Your task to perform on an android device: Open network settings Image 0: 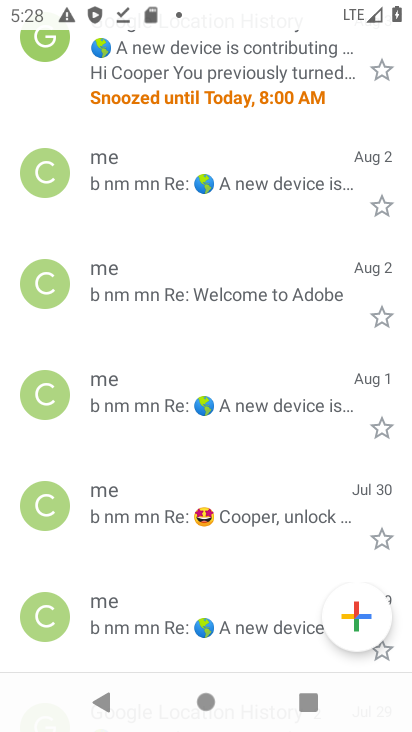
Step 0: drag from (215, 258) to (255, 693)
Your task to perform on an android device: Open network settings Image 1: 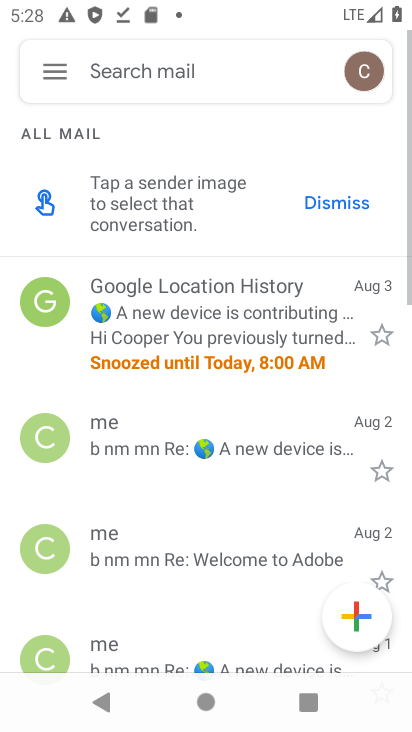
Step 1: click (63, 75)
Your task to perform on an android device: Open network settings Image 2: 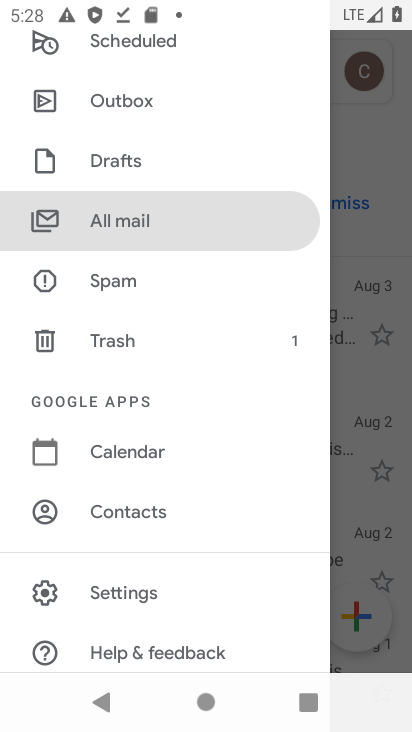
Step 2: drag from (182, 138) to (200, 663)
Your task to perform on an android device: Open network settings Image 3: 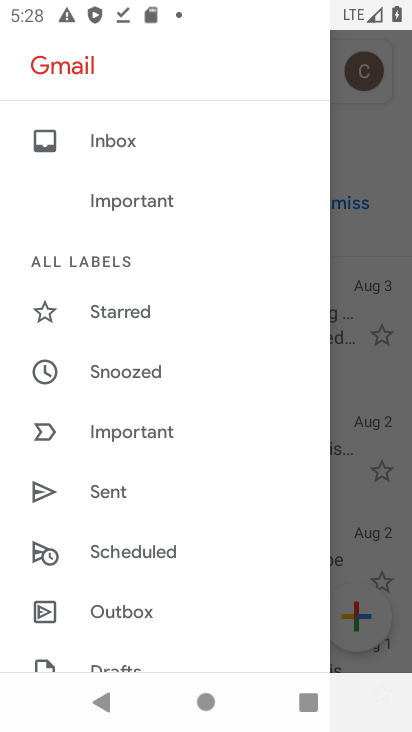
Step 3: drag from (89, 229) to (245, 722)
Your task to perform on an android device: Open network settings Image 4: 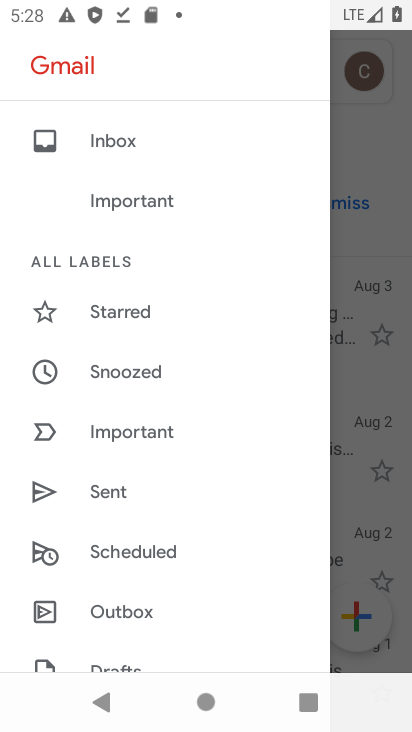
Step 4: press home button
Your task to perform on an android device: Open network settings Image 5: 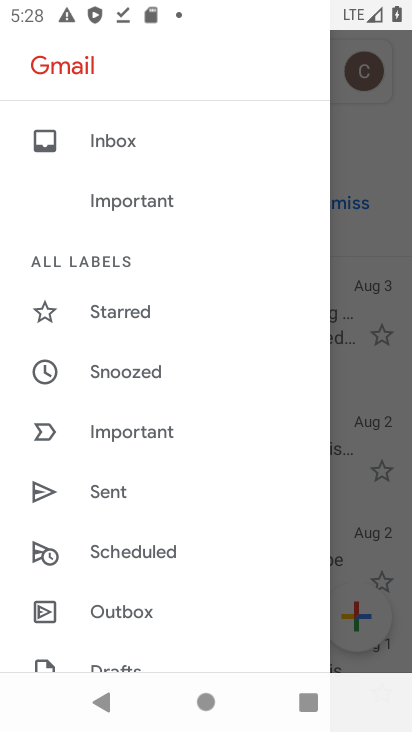
Step 5: drag from (212, 604) to (299, 102)
Your task to perform on an android device: Open network settings Image 6: 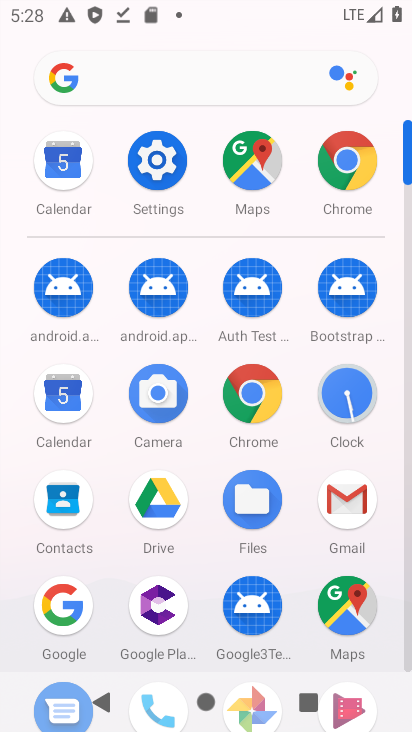
Step 6: click (160, 155)
Your task to perform on an android device: Open network settings Image 7: 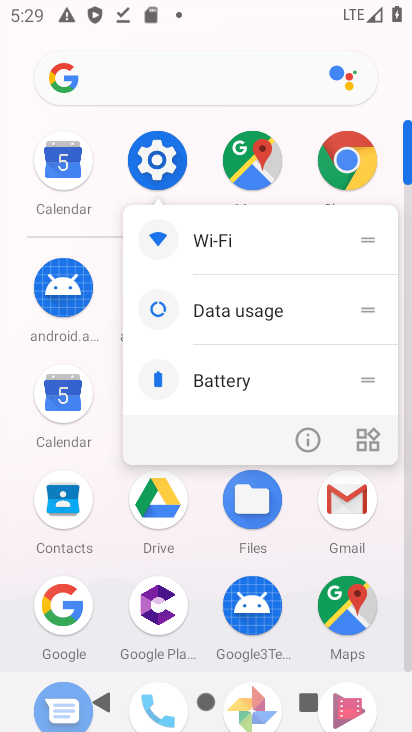
Step 7: click (301, 433)
Your task to perform on an android device: Open network settings Image 8: 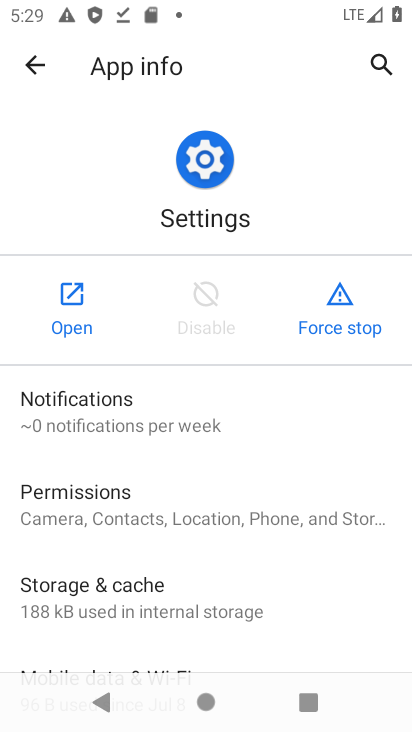
Step 8: click (76, 303)
Your task to perform on an android device: Open network settings Image 9: 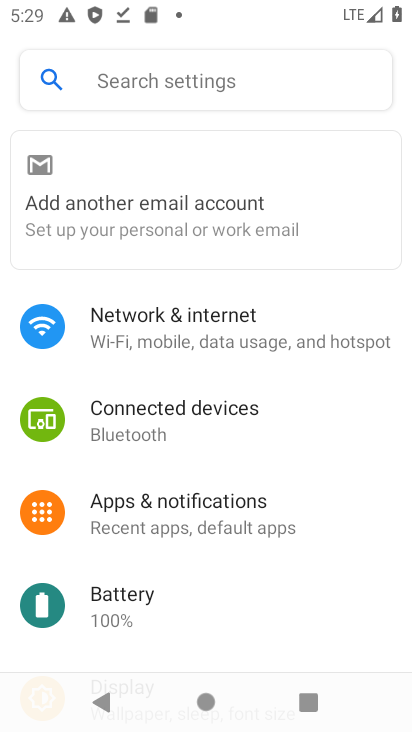
Step 9: drag from (208, 615) to (248, 261)
Your task to perform on an android device: Open network settings Image 10: 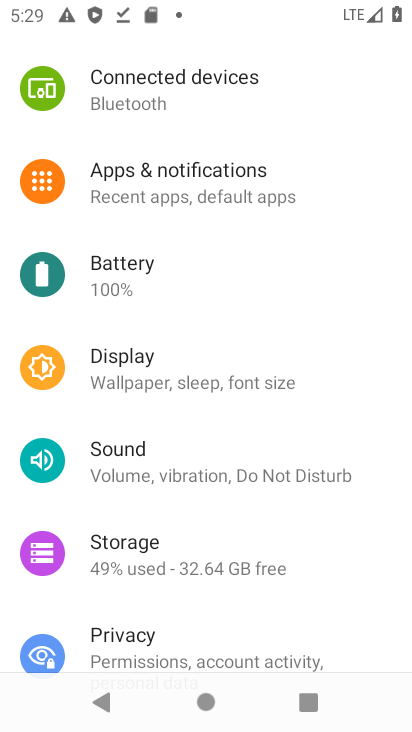
Step 10: drag from (173, 175) to (246, 566)
Your task to perform on an android device: Open network settings Image 11: 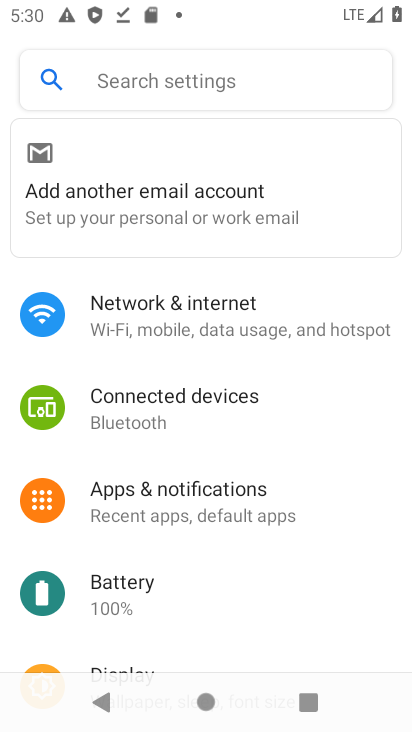
Step 11: drag from (125, 619) to (179, 309)
Your task to perform on an android device: Open network settings Image 12: 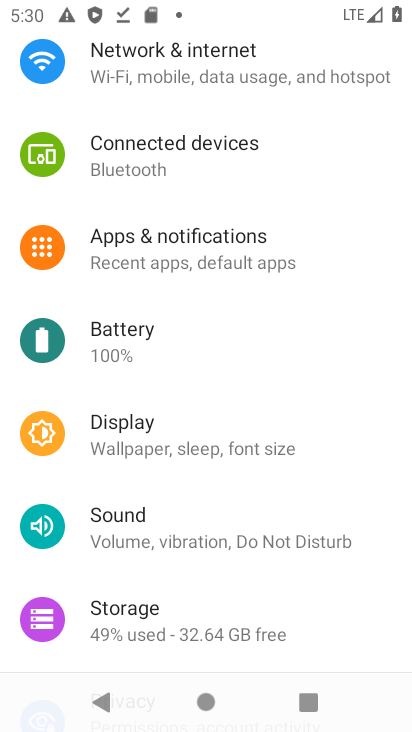
Step 12: drag from (185, 290) to (168, 679)
Your task to perform on an android device: Open network settings Image 13: 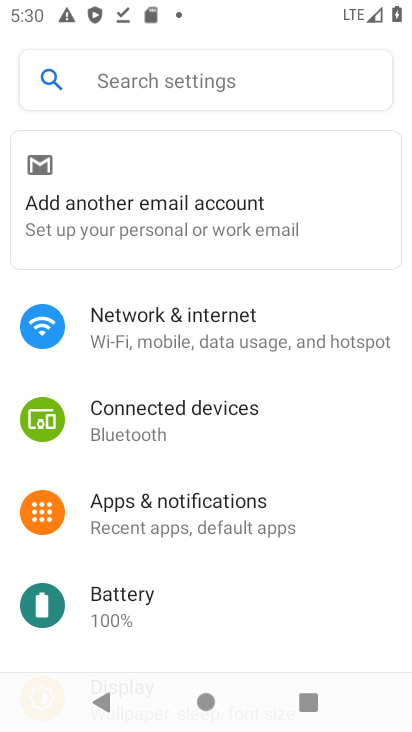
Step 13: click (219, 346)
Your task to perform on an android device: Open network settings Image 14: 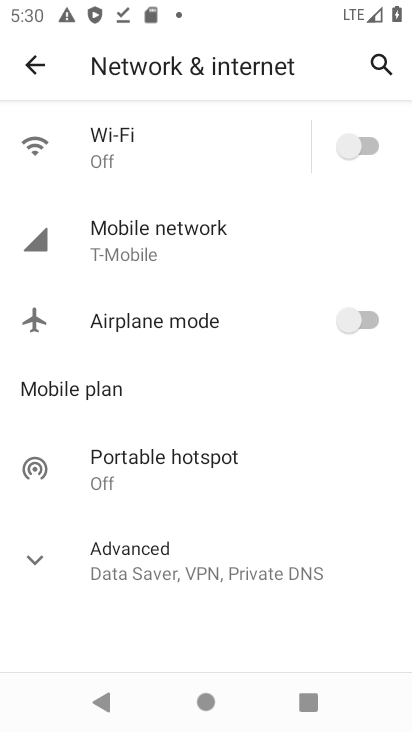
Step 14: drag from (202, 587) to (213, 398)
Your task to perform on an android device: Open network settings Image 15: 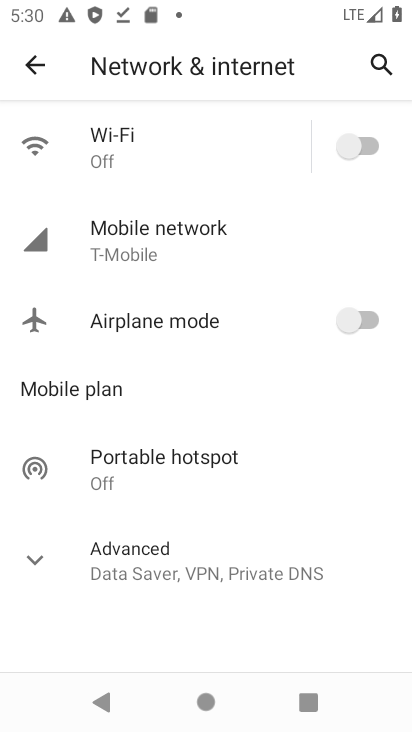
Step 15: click (182, 234)
Your task to perform on an android device: Open network settings Image 16: 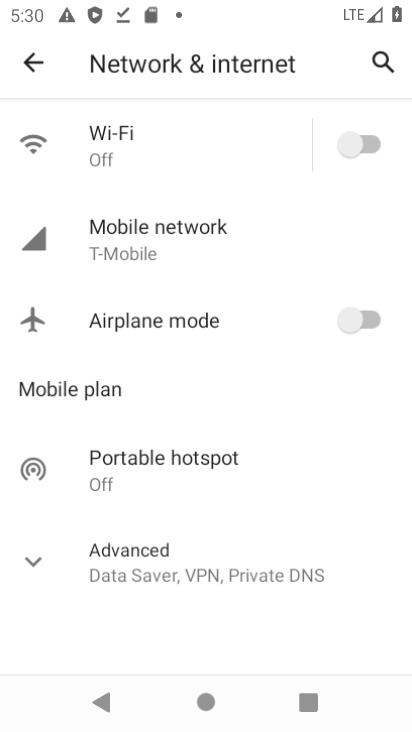
Step 16: task complete